Your task to perform on an android device: toggle improve location accuracy Image 0: 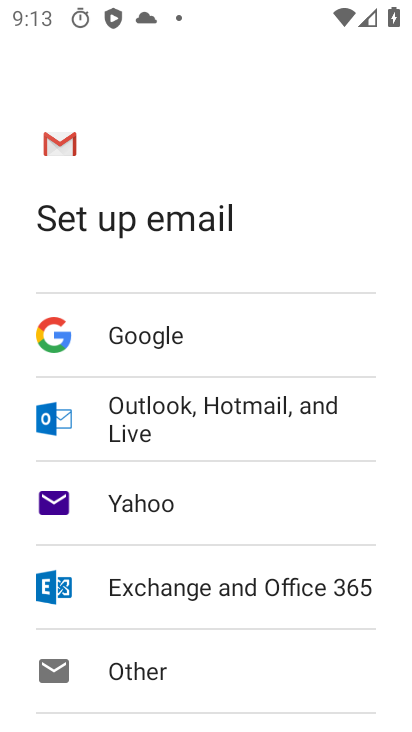
Step 0: press home button
Your task to perform on an android device: toggle improve location accuracy Image 1: 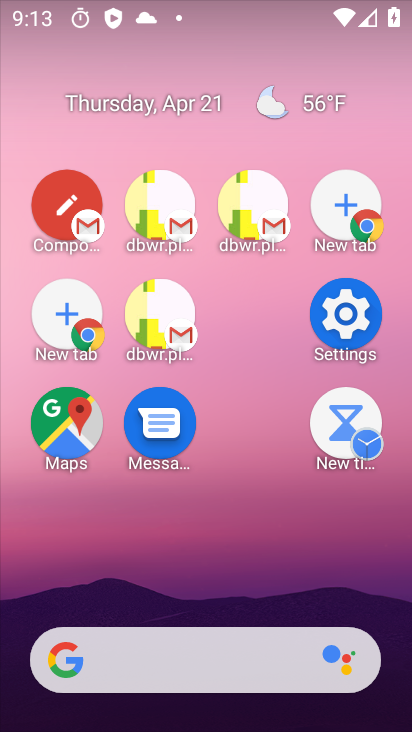
Step 1: drag from (233, 514) to (191, 225)
Your task to perform on an android device: toggle improve location accuracy Image 2: 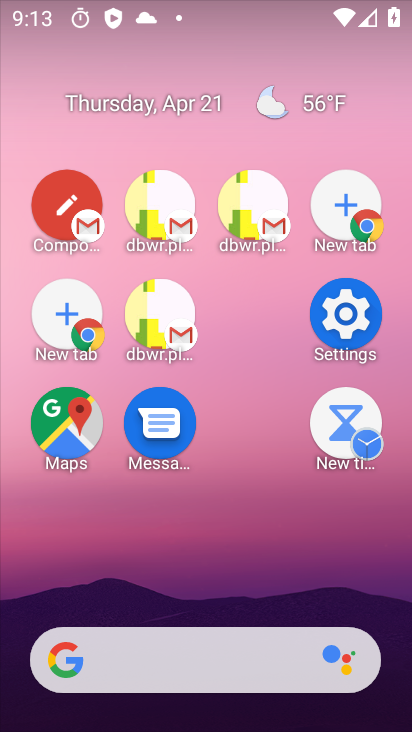
Step 2: drag from (227, 593) to (130, 146)
Your task to perform on an android device: toggle improve location accuracy Image 3: 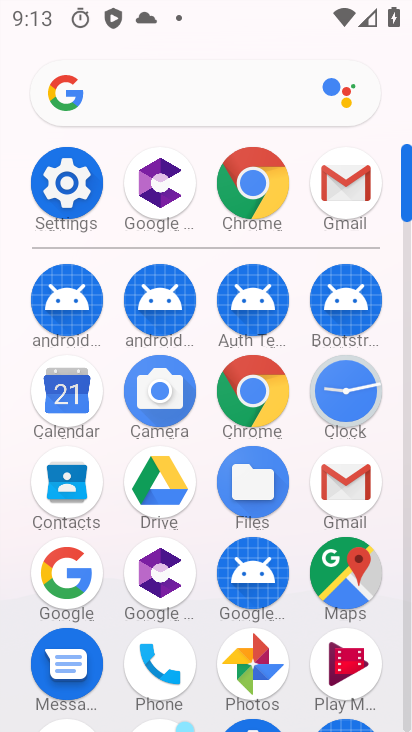
Step 3: click (65, 184)
Your task to perform on an android device: toggle improve location accuracy Image 4: 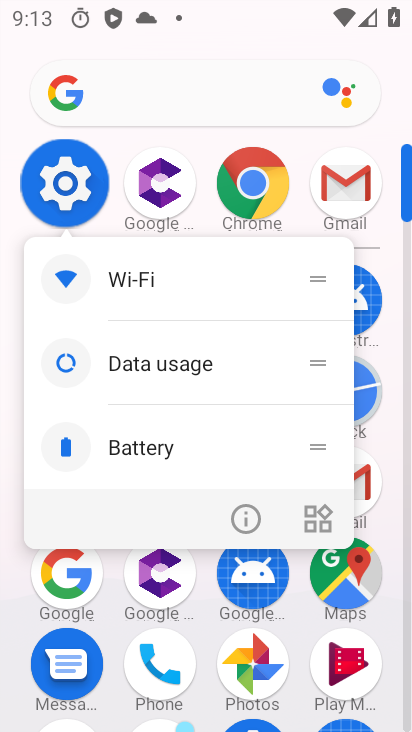
Step 4: click (65, 184)
Your task to perform on an android device: toggle improve location accuracy Image 5: 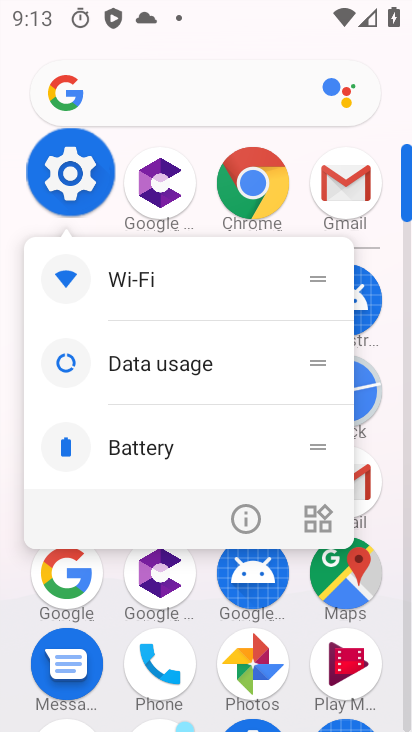
Step 5: click (70, 173)
Your task to perform on an android device: toggle improve location accuracy Image 6: 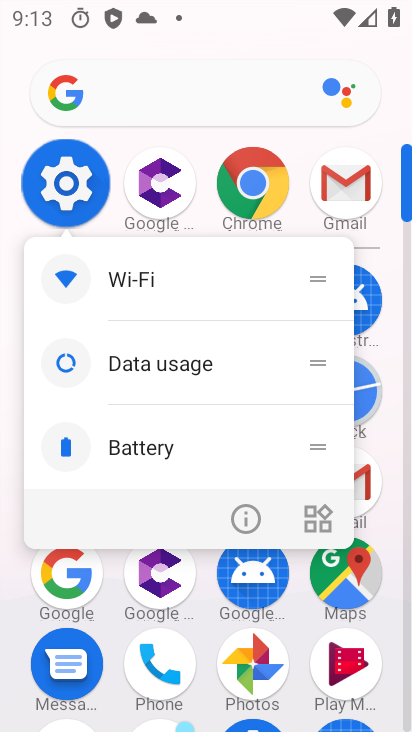
Step 6: click (75, 171)
Your task to perform on an android device: toggle improve location accuracy Image 7: 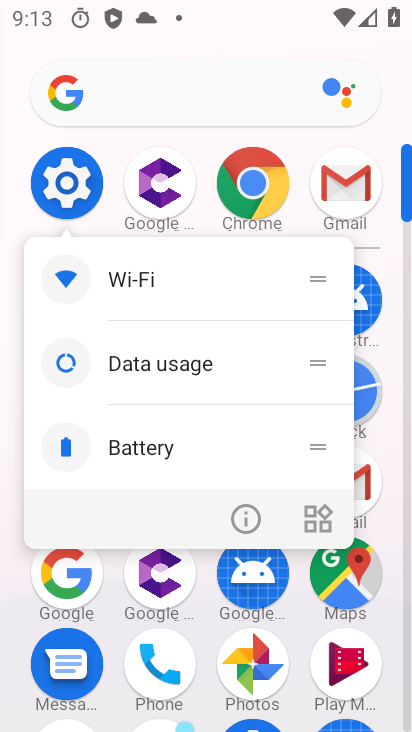
Step 7: click (75, 171)
Your task to perform on an android device: toggle improve location accuracy Image 8: 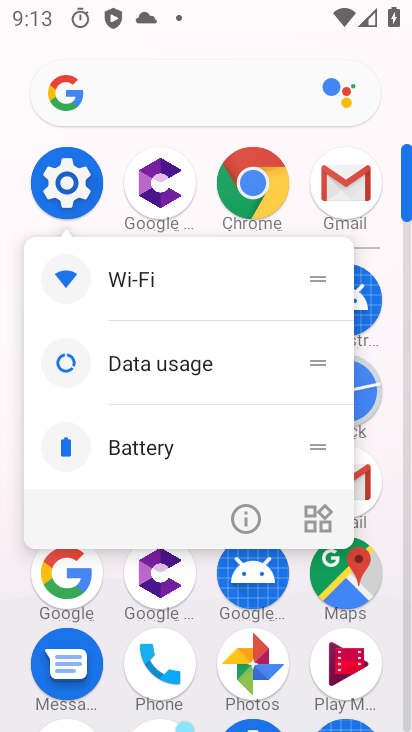
Step 8: click (75, 171)
Your task to perform on an android device: toggle improve location accuracy Image 9: 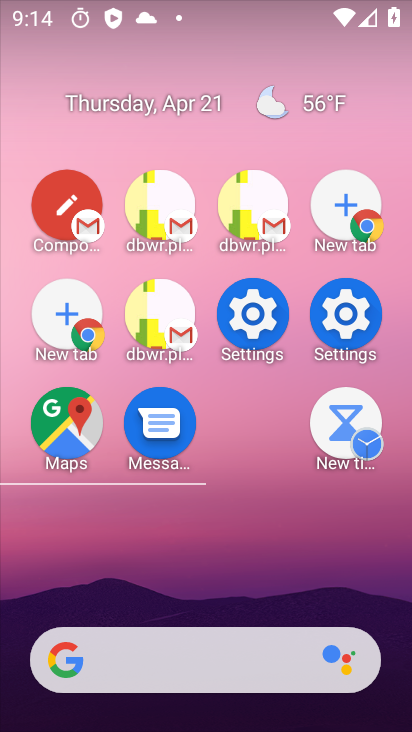
Step 9: drag from (300, 584) to (230, 153)
Your task to perform on an android device: toggle improve location accuracy Image 10: 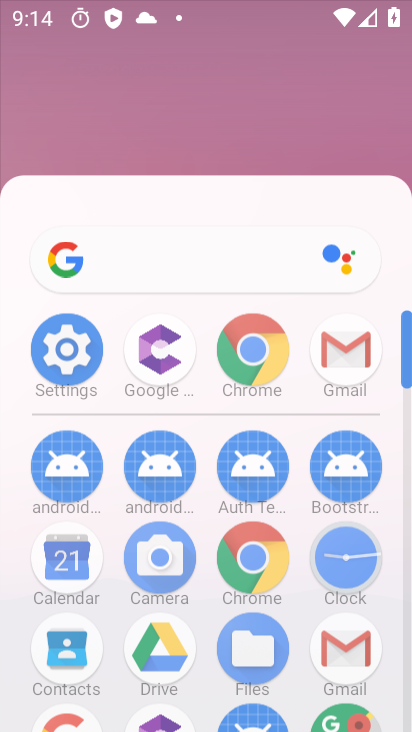
Step 10: drag from (199, 259) to (199, 180)
Your task to perform on an android device: toggle improve location accuracy Image 11: 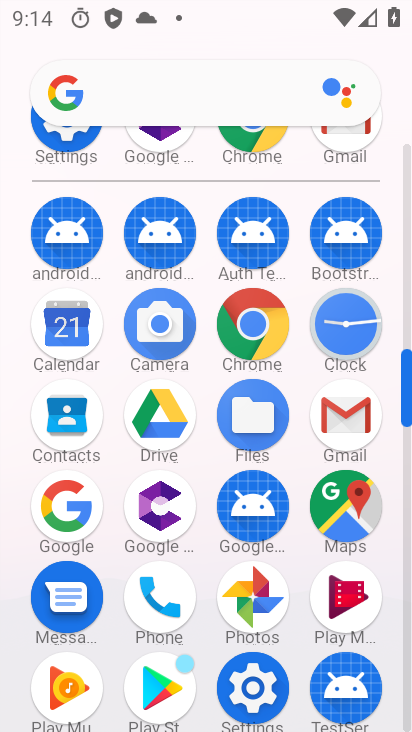
Step 11: click (72, 138)
Your task to perform on an android device: toggle improve location accuracy Image 12: 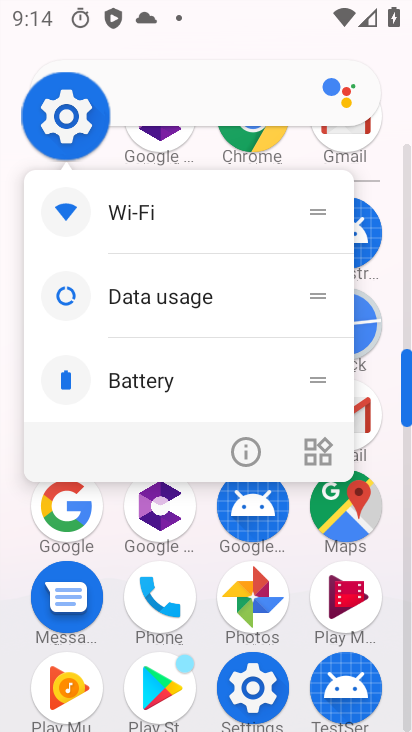
Step 12: click (70, 119)
Your task to perform on an android device: toggle improve location accuracy Image 13: 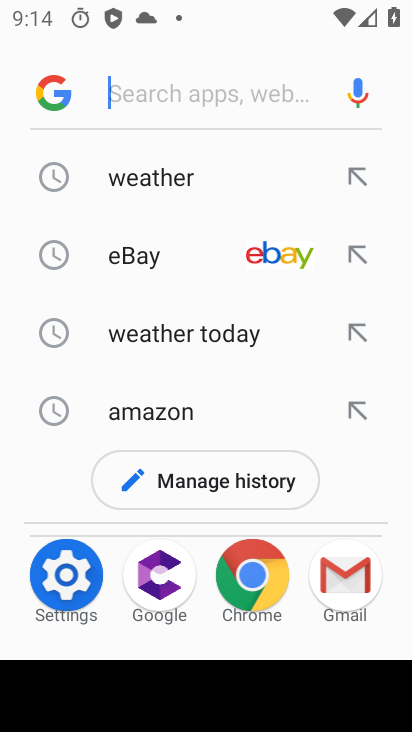
Step 13: drag from (231, 674) to (175, 275)
Your task to perform on an android device: toggle improve location accuracy Image 14: 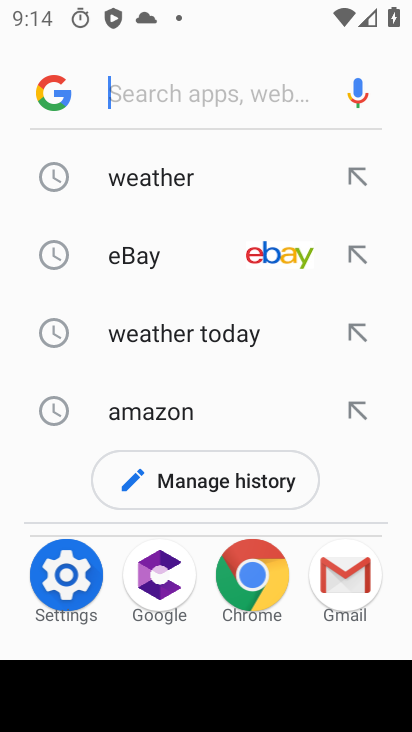
Step 14: drag from (265, 526) to (212, 169)
Your task to perform on an android device: toggle improve location accuracy Image 15: 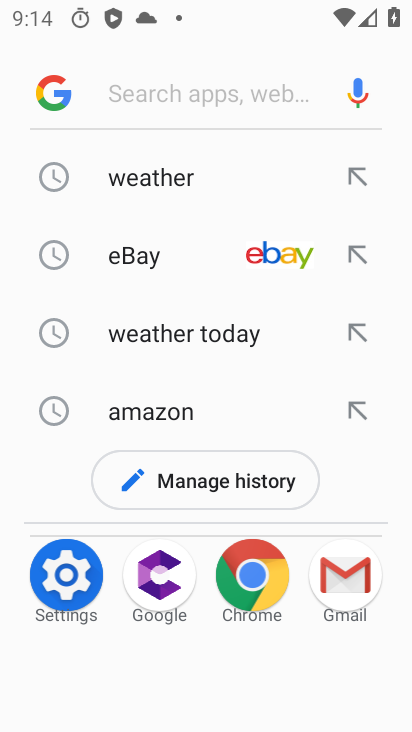
Step 15: press home button
Your task to perform on an android device: toggle improve location accuracy Image 16: 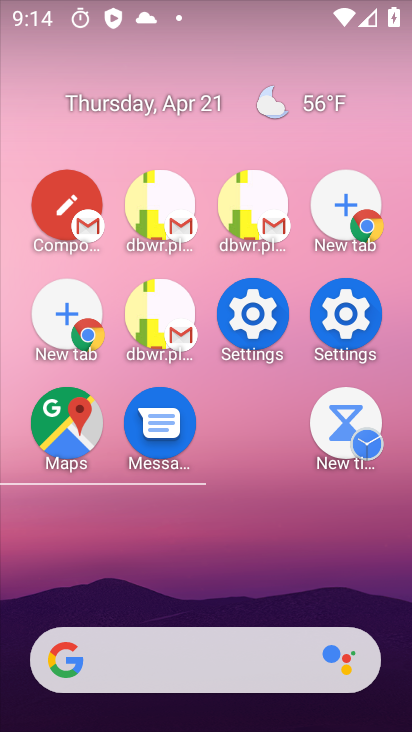
Step 16: drag from (290, 684) to (207, 131)
Your task to perform on an android device: toggle improve location accuracy Image 17: 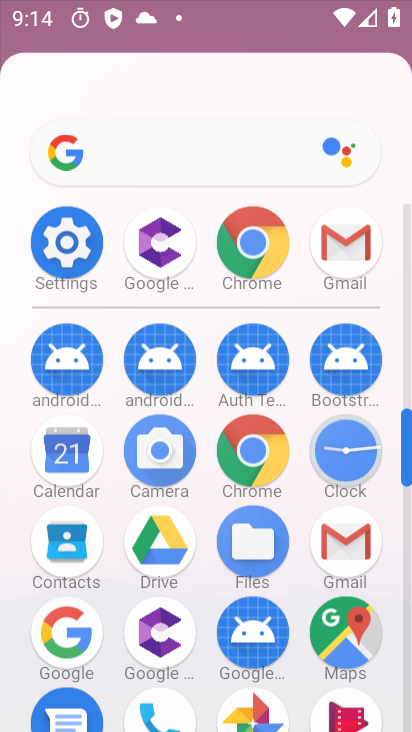
Step 17: drag from (262, 540) to (184, 153)
Your task to perform on an android device: toggle improve location accuracy Image 18: 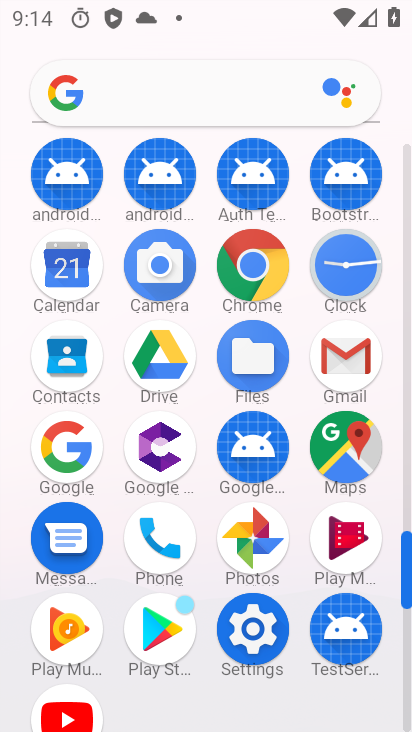
Step 18: click (244, 628)
Your task to perform on an android device: toggle improve location accuracy Image 19: 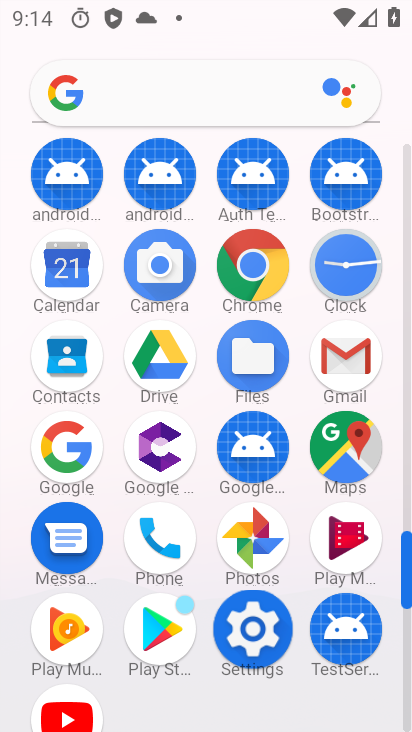
Step 19: click (245, 628)
Your task to perform on an android device: toggle improve location accuracy Image 20: 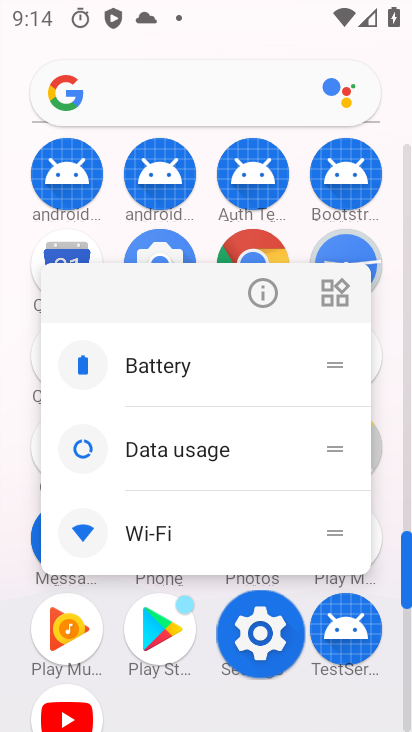
Step 20: click (255, 635)
Your task to perform on an android device: toggle improve location accuracy Image 21: 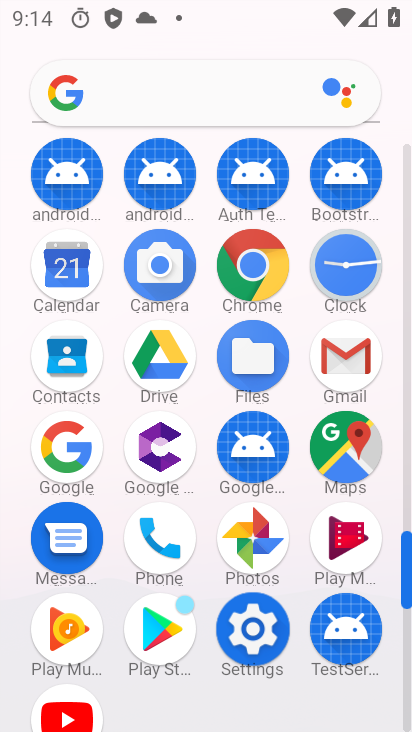
Step 21: click (256, 636)
Your task to perform on an android device: toggle improve location accuracy Image 22: 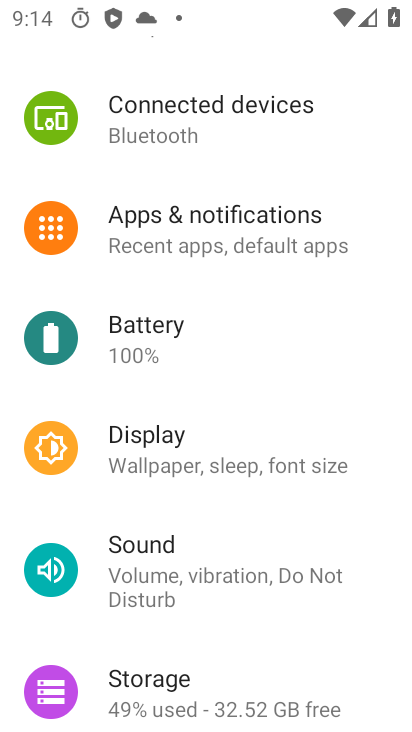
Step 22: drag from (245, 605) to (174, 190)
Your task to perform on an android device: toggle improve location accuracy Image 23: 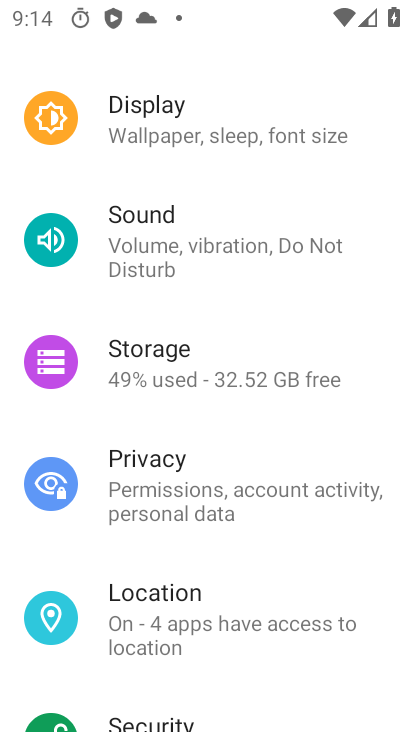
Step 23: click (172, 595)
Your task to perform on an android device: toggle improve location accuracy Image 24: 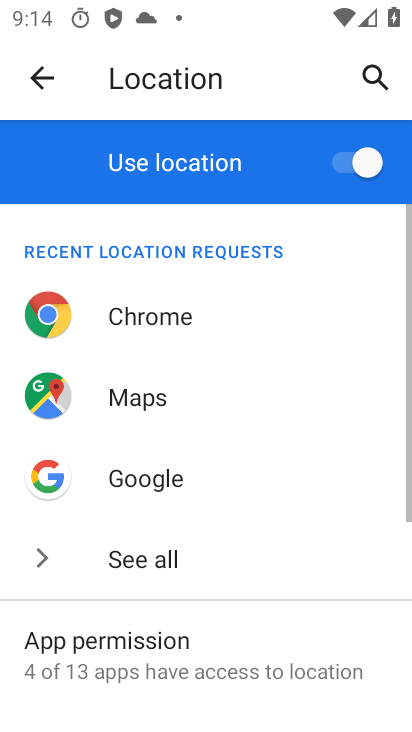
Step 24: drag from (175, 487) to (179, 166)
Your task to perform on an android device: toggle improve location accuracy Image 25: 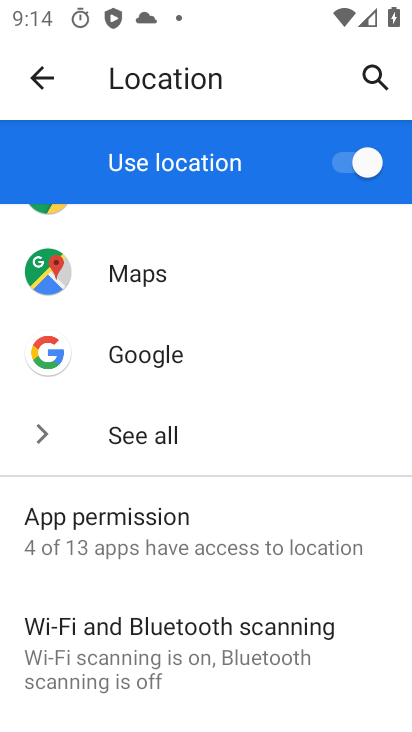
Step 25: click (358, 161)
Your task to perform on an android device: toggle improve location accuracy Image 26: 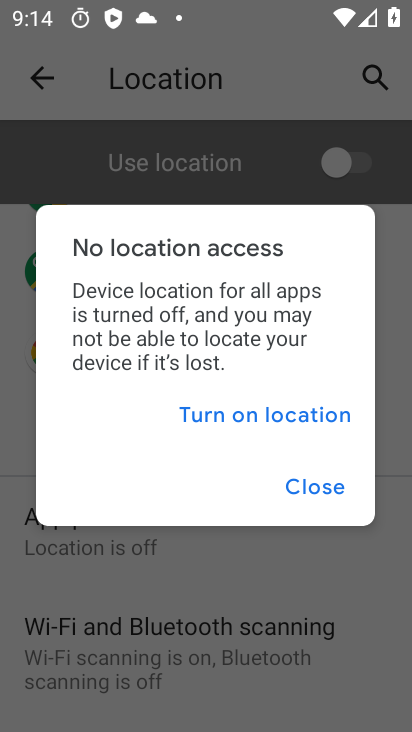
Step 26: click (292, 416)
Your task to perform on an android device: toggle improve location accuracy Image 27: 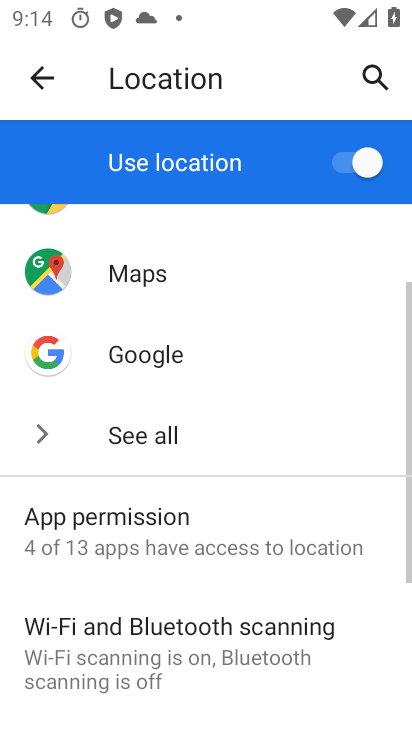
Step 27: click (374, 162)
Your task to perform on an android device: toggle improve location accuracy Image 28: 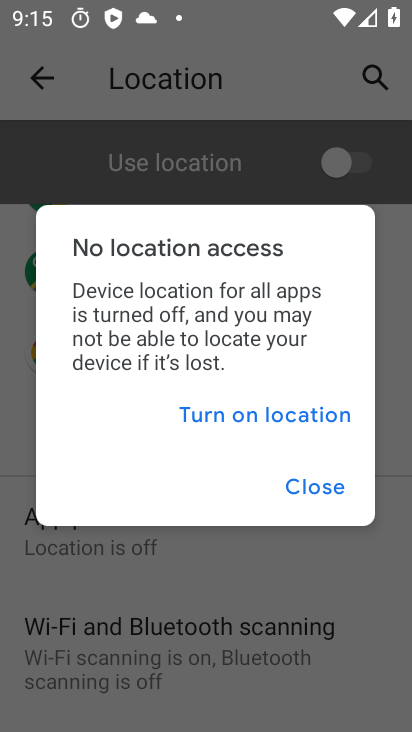
Step 28: task complete